Your task to perform on an android device: toggle wifi Image 0: 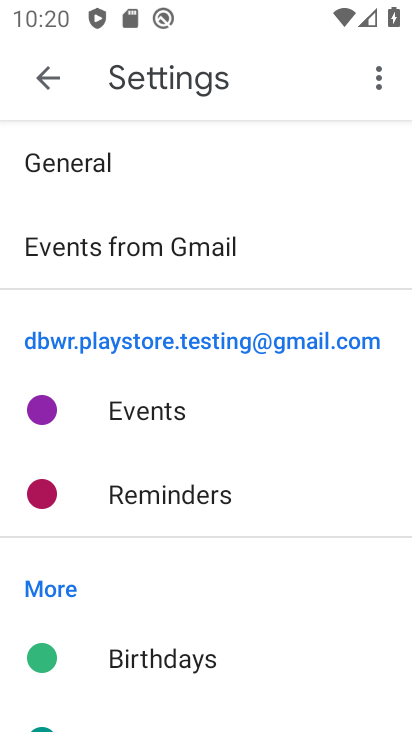
Step 0: press home button
Your task to perform on an android device: toggle wifi Image 1: 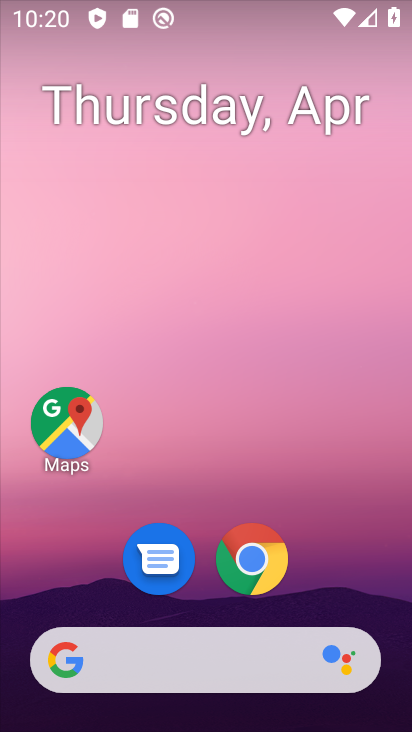
Step 1: drag from (260, 706) to (325, 241)
Your task to perform on an android device: toggle wifi Image 2: 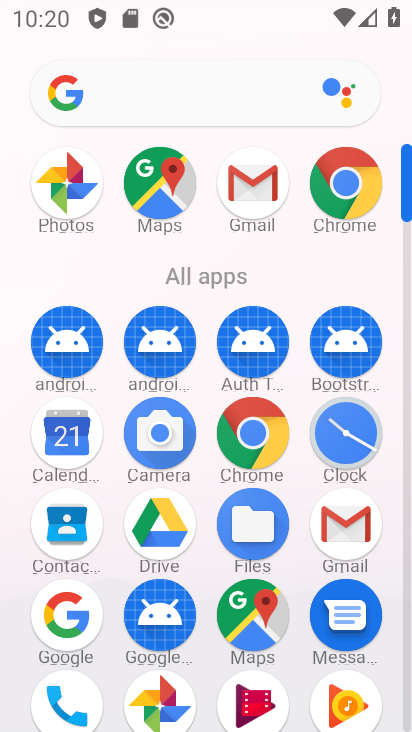
Step 2: drag from (119, 474) to (134, 289)
Your task to perform on an android device: toggle wifi Image 3: 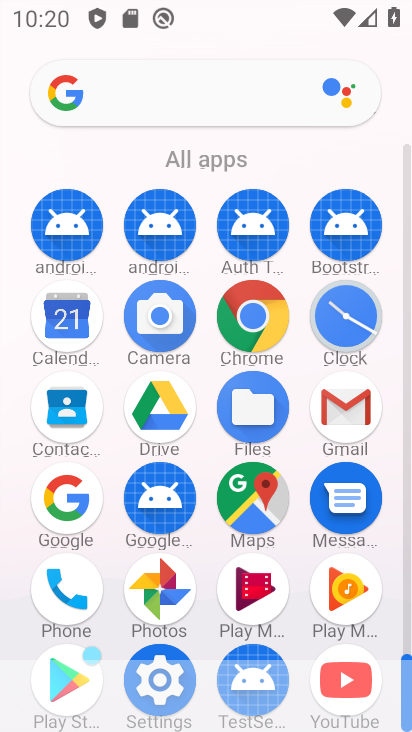
Step 3: click (159, 648)
Your task to perform on an android device: toggle wifi Image 4: 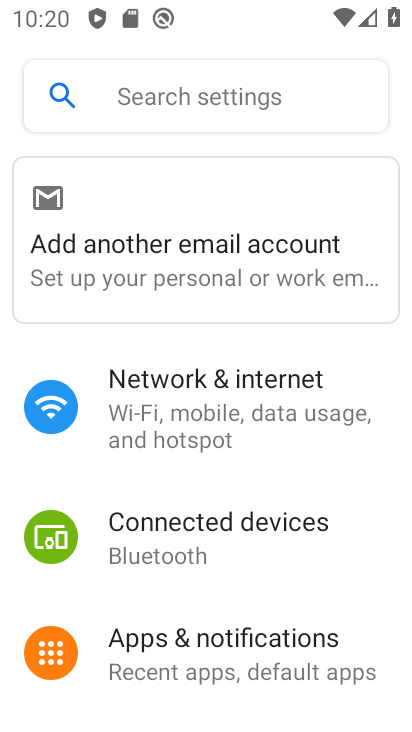
Step 4: click (163, 426)
Your task to perform on an android device: toggle wifi Image 5: 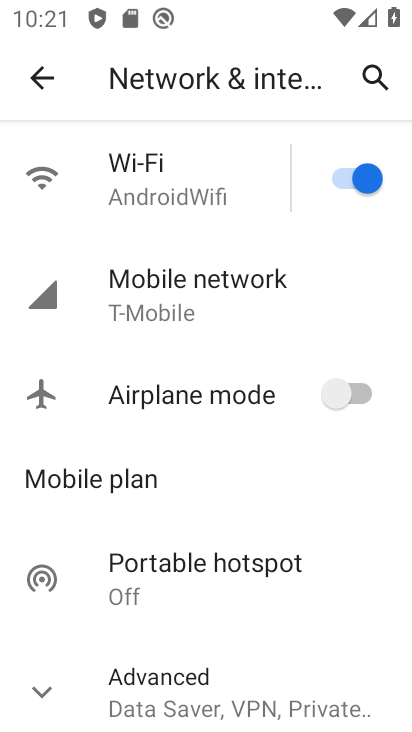
Step 5: click (128, 170)
Your task to perform on an android device: toggle wifi Image 6: 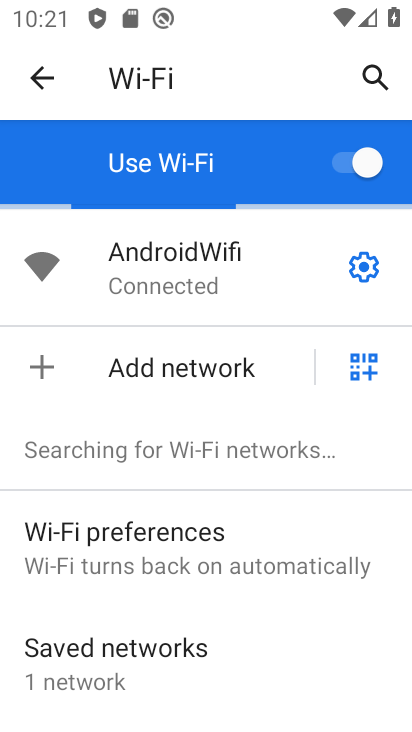
Step 6: task complete